Your task to perform on an android device: open a bookmark in the chrome app Image 0: 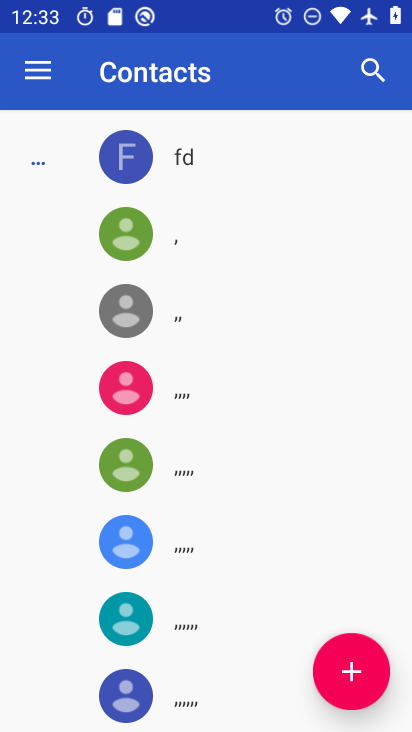
Step 0: press home button
Your task to perform on an android device: open a bookmark in the chrome app Image 1: 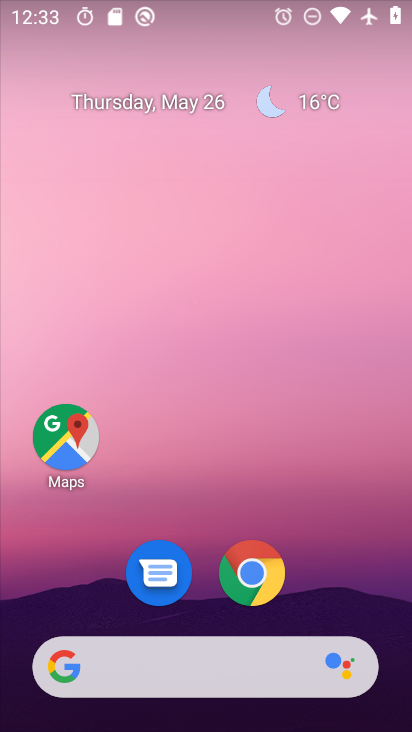
Step 1: click (249, 602)
Your task to perform on an android device: open a bookmark in the chrome app Image 2: 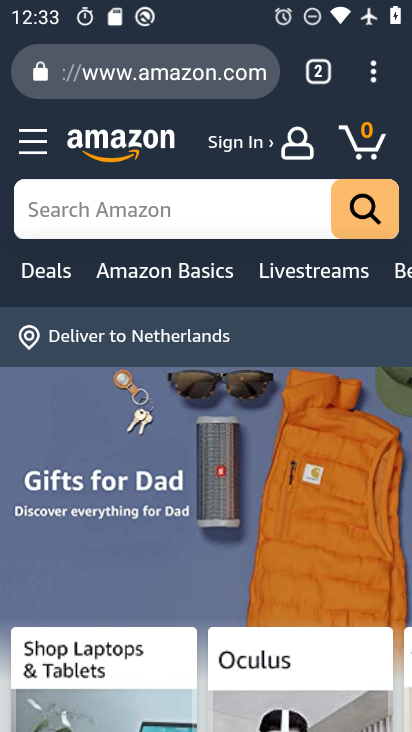
Step 2: click (379, 69)
Your task to perform on an android device: open a bookmark in the chrome app Image 3: 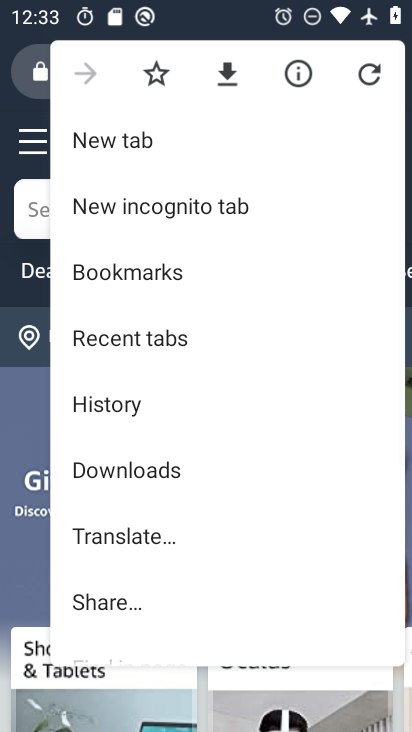
Step 3: click (136, 280)
Your task to perform on an android device: open a bookmark in the chrome app Image 4: 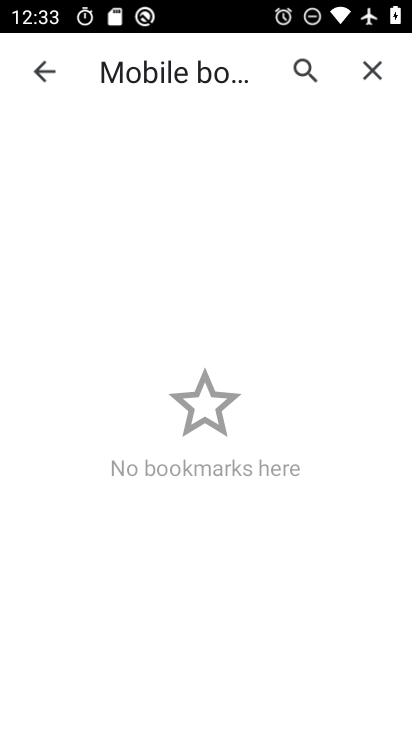
Step 4: task complete